Your task to perform on an android device: turn on the 12-hour format for clock Image 0: 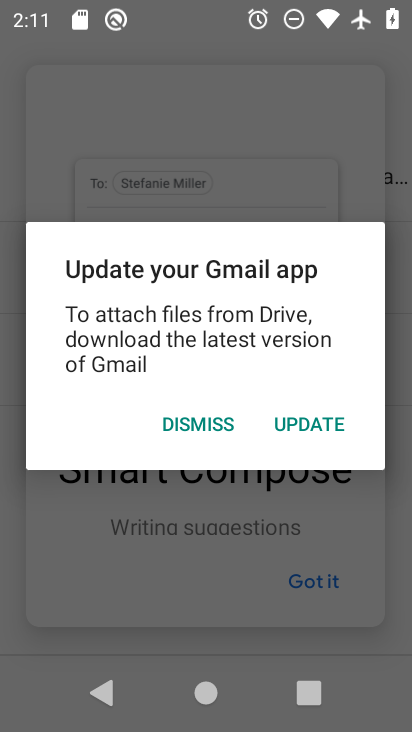
Step 0: press home button
Your task to perform on an android device: turn on the 12-hour format for clock Image 1: 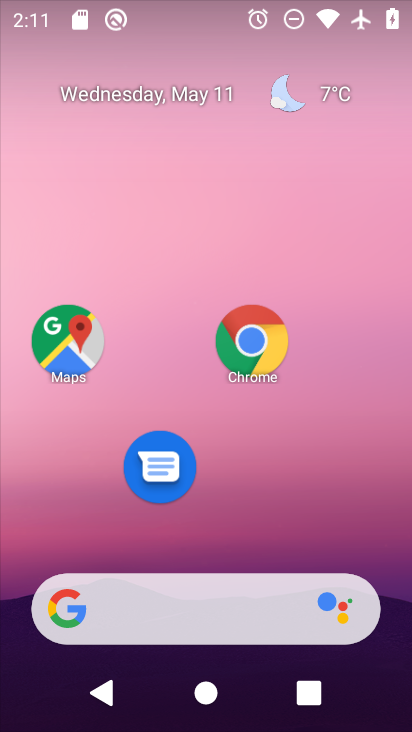
Step 1: drag from (126, 613) to (211, 216)
Your task to perform on an android device: turn on the 12-hour format for clock Image 2: 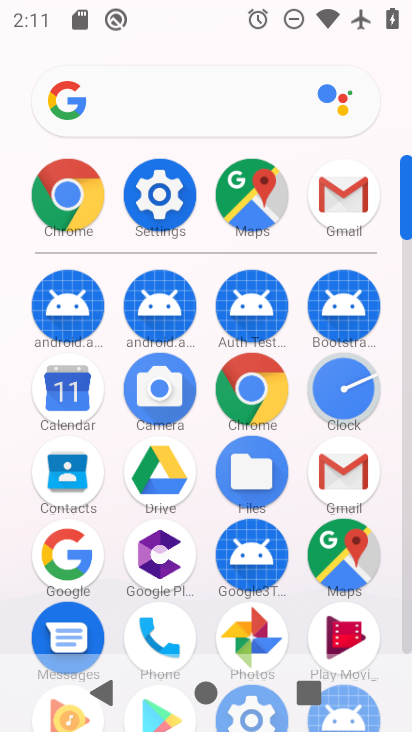
Step 2: click (336, 408)
Your task to perform on an android device: turn on the 12-hour format for clock Image 3: 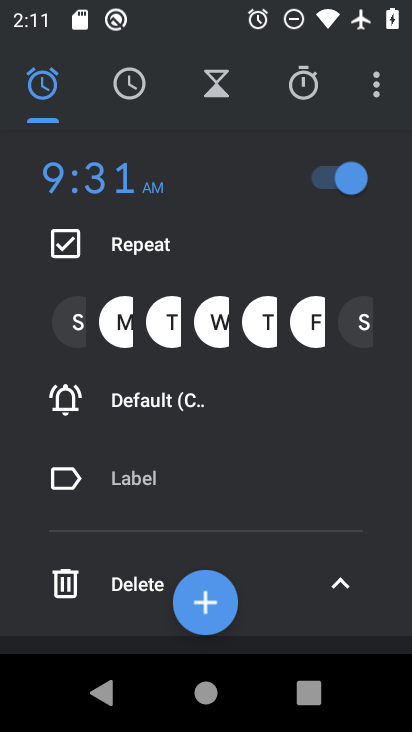
Step 3: click (373, 97)
Your task to perform on an android device: turn on the 12-hour format for clock Image 4: 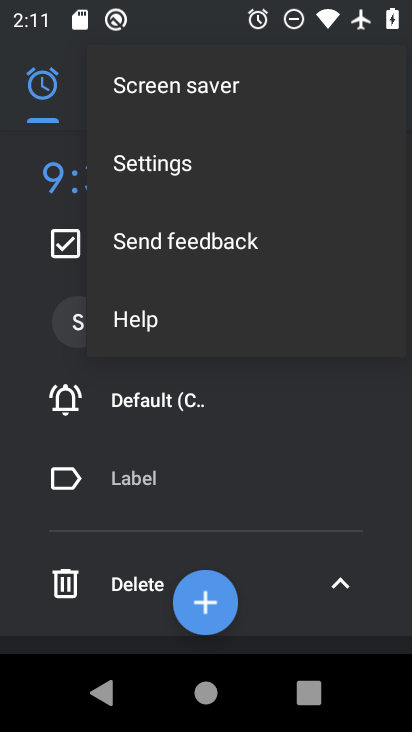
Step 4: click (169, 166)
Your task to perform on an android device: turn on the 12-hour format for clock Image 5: 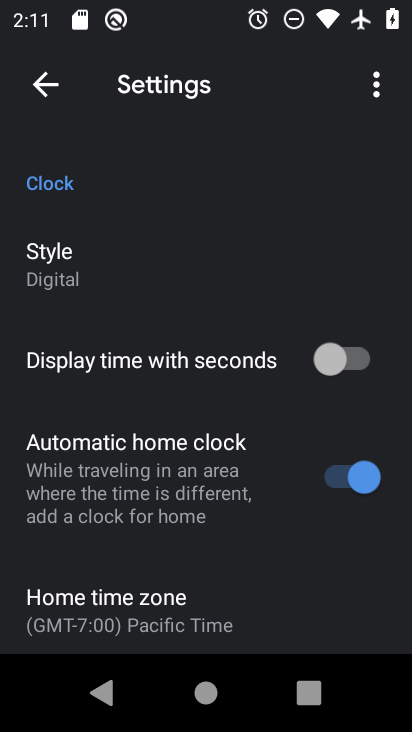
Step 5: drag from (186, 549) to (306, 131)
Your task to perform on an android device: turn on the 12-hour format for clock Image 6: 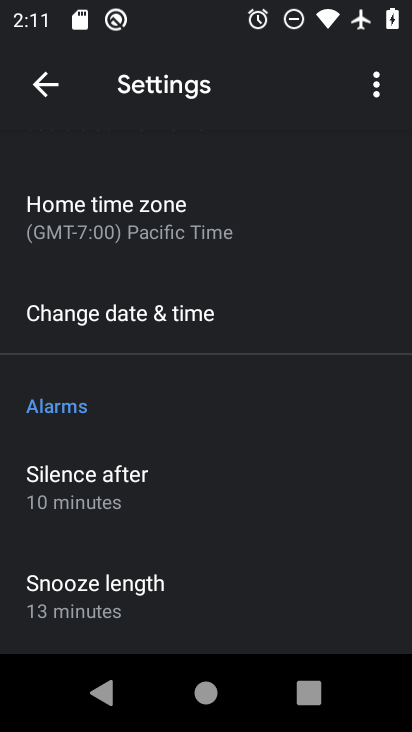
Step 6: click (192, 318)
Your task to perform on an android device: turn on the 12-hour format for clock Image 7: 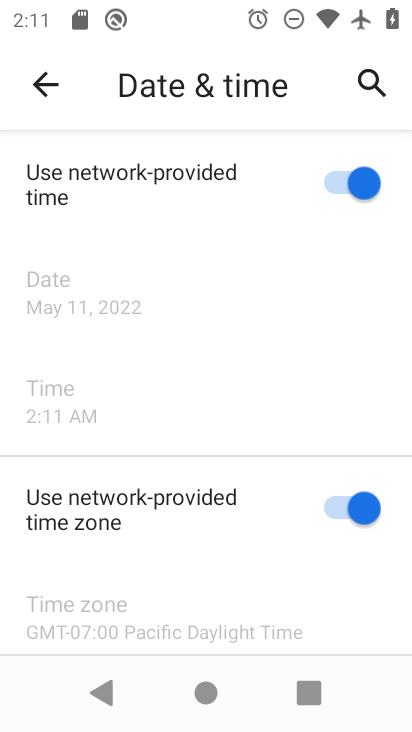
Step 7: task complete